Your task to perform on an android device: Toggle the flashlight Image 0: 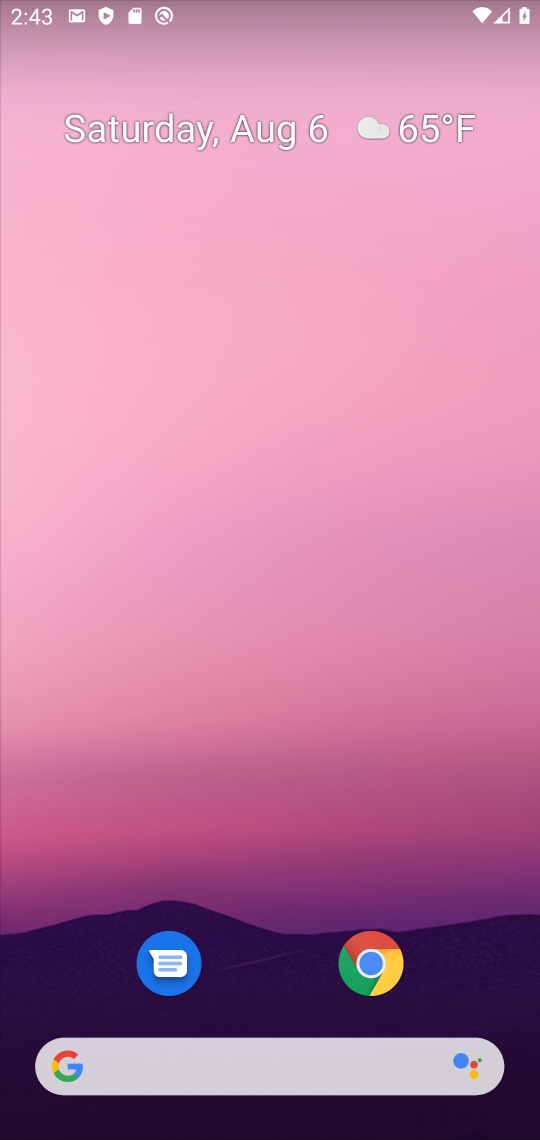
Step 0: drag from (470, 9) to (441, 624)
Your task to perform on an android device: Toggle the flashlight Image 1: 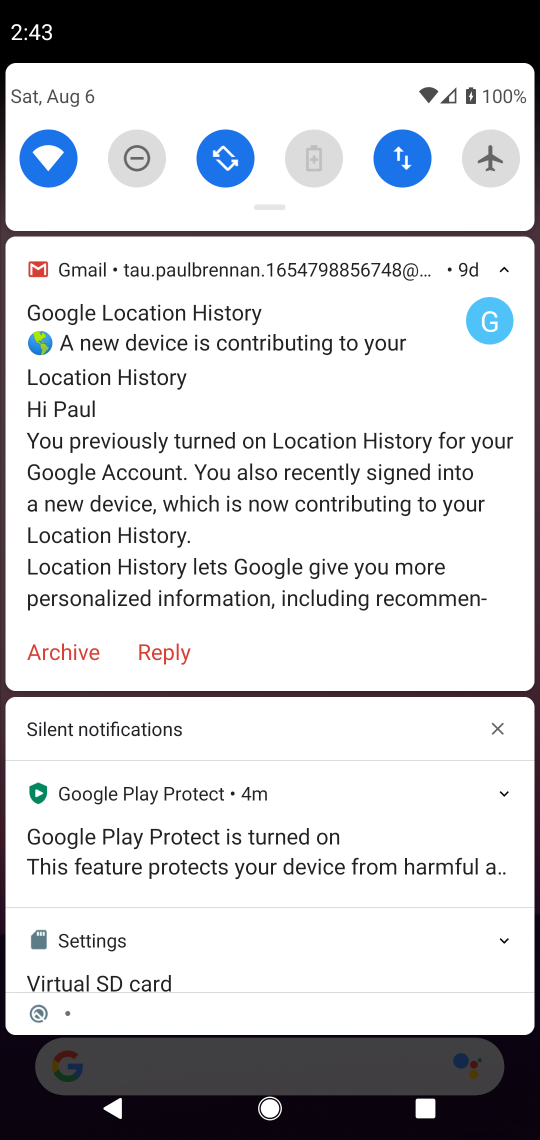
Step 1: drag from (318, 205) to (349, 949)
Your task to perform on an android device: Toggle the flashlight Image 2: 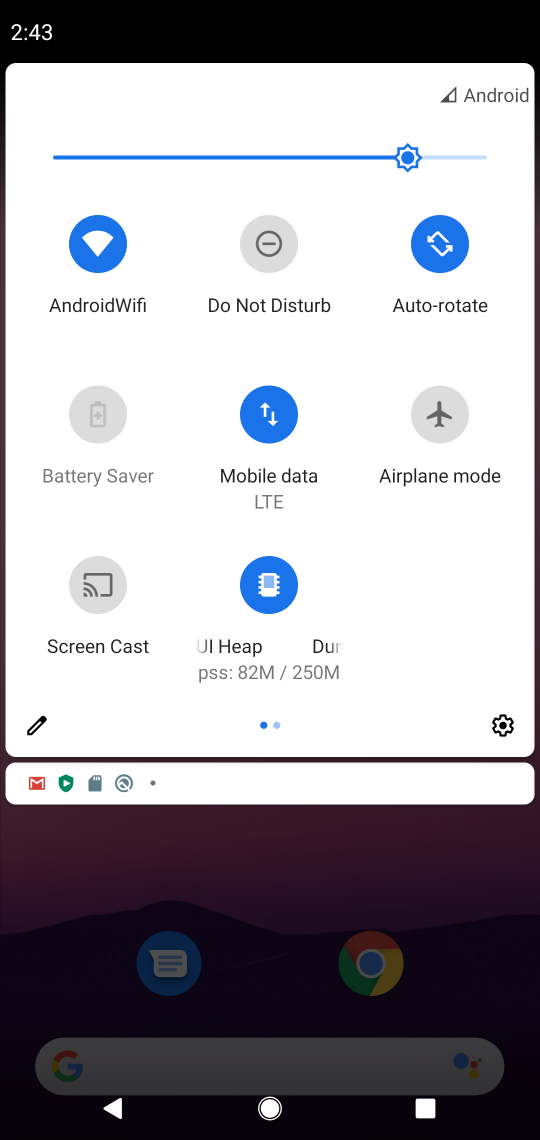
Step 2: click (27, 714)
Your task to perform on an android device: Toggle the flashlight Image 3: 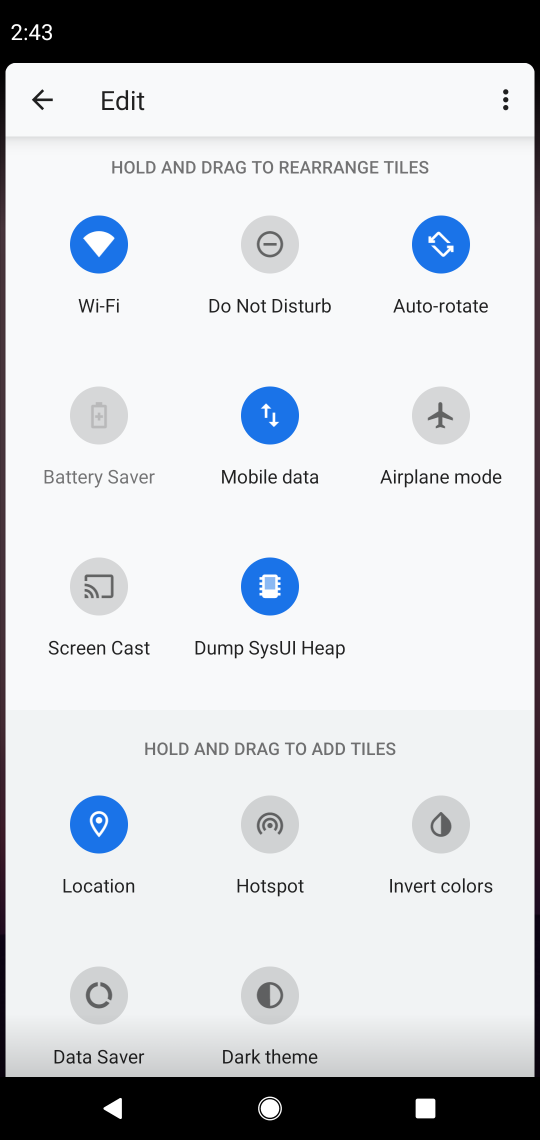
Step 3: task complete